Your task to perform on an android device: Open notification settings Image 0: 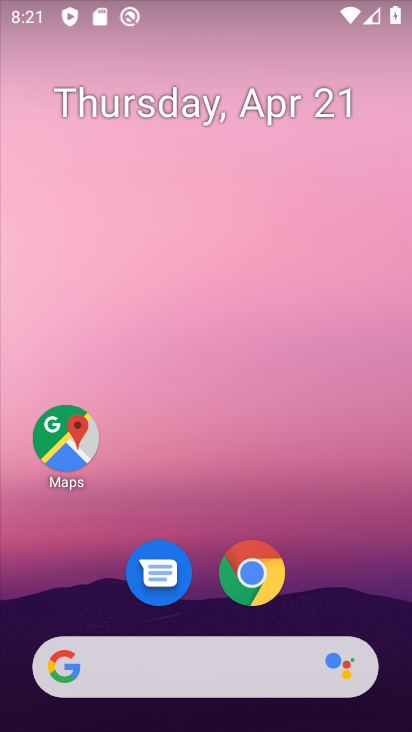
Step 0: drag from (332, 529) to (284, 26)
Your task to perform on an android device: Open notification settings Image 1: 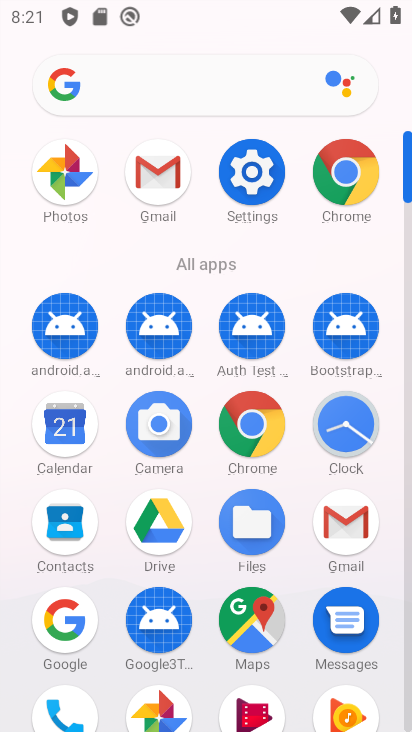
Step 1: click (247, 201)
Your task to perform on an android device: Open notification settings Image 2: 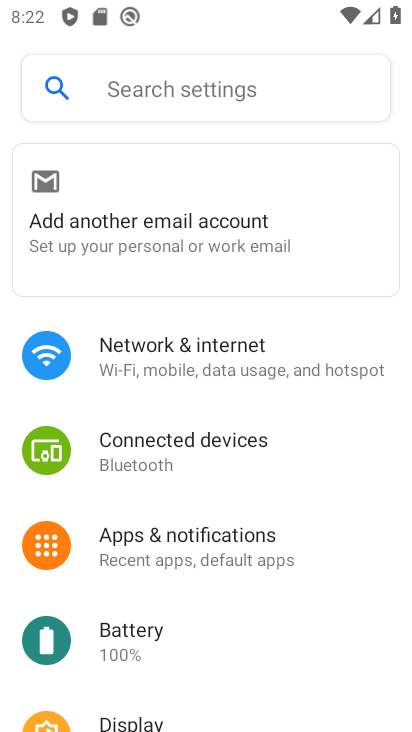
Step 2: drag from (229, 617) to (165, 357)
Your task to perform on an android device: Open notification settings Image 3: 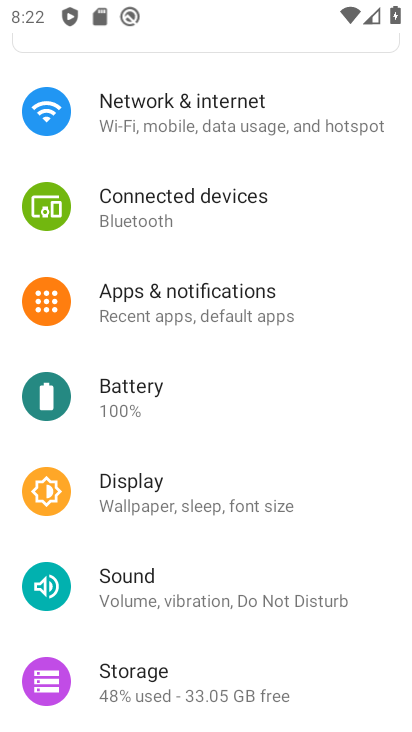
Step 3: click (174, 307)
Your task to perform on an android device: Open notification settings Image 4: 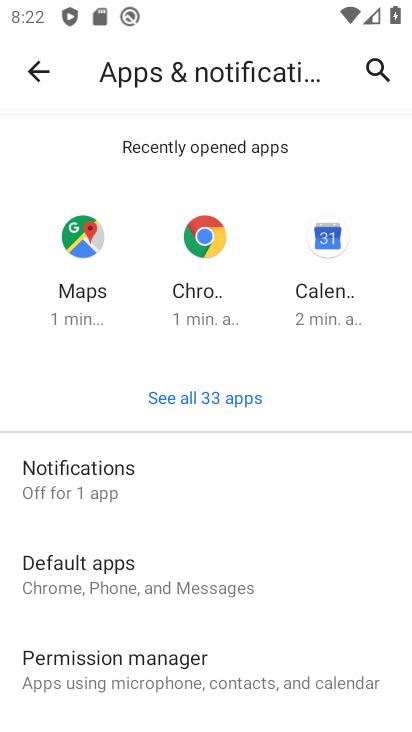
Step 4: click (140, 469)
Your task to perform on an android device: Open notification settings Image 5: 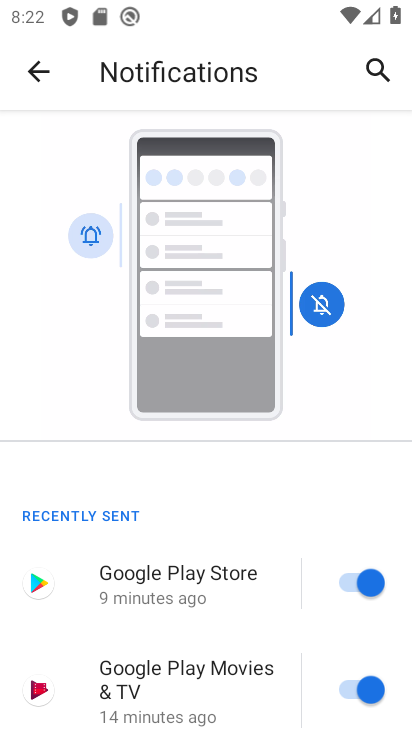
Step 5: task complete